Your task to perform on an android device: toggle sleep mode Image 0: 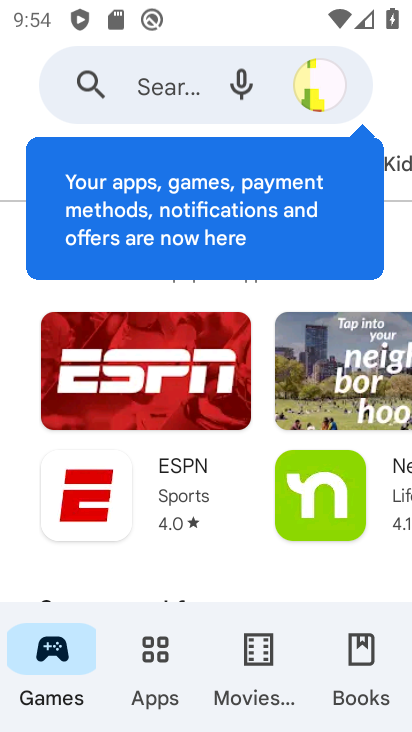
Step 0: task complete